Your task to perform on an android device: Search for pizza restaurants on Maps Image 0: 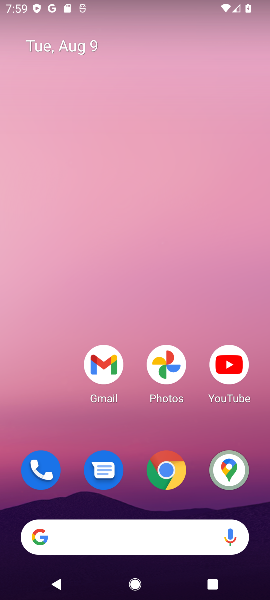
Step 0: click (229, 463)
Your task to perform on an android device: Search for pizza restaurants on Maps Image 1: 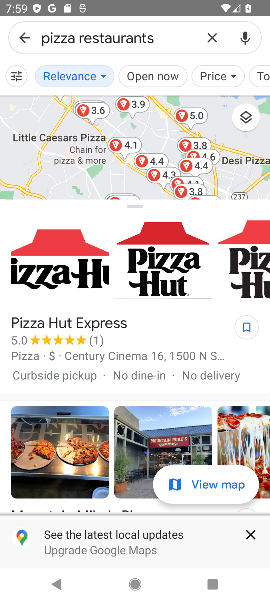
Step 1: task complete